Your task to perform on an android device: Show me popular videos on Youtube Image 0: 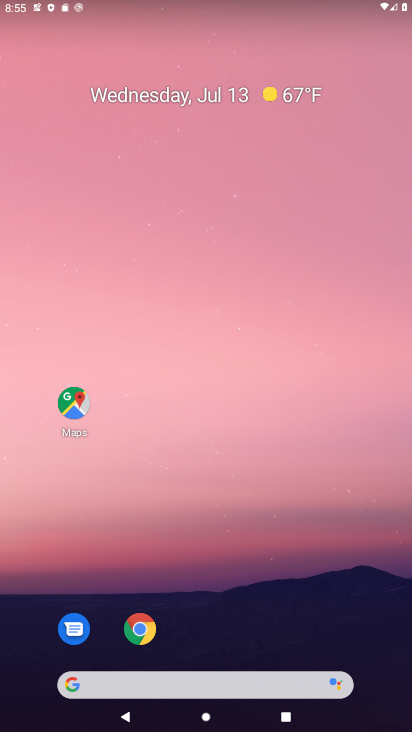
Step 0: drag from (230, 651) to (308, 30)
Your task to perform on an android device: Show me popular videos on Youtube Image 1: 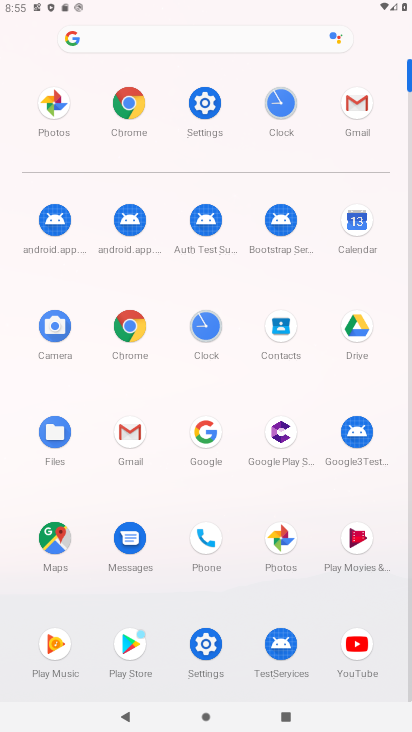
Step 1: click (355, 657)
Your task to perform on an android device: Show me popular videos on Youtube Image 2: 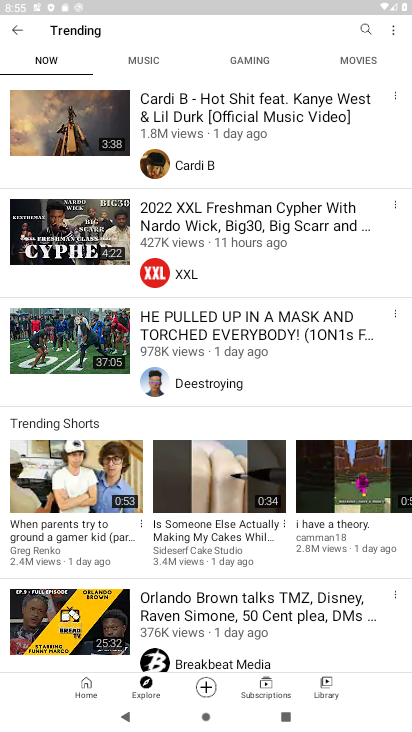
Step 2: task complete